Your task to perform on an android device: Open calendar and show me the first week of next month Image 0: 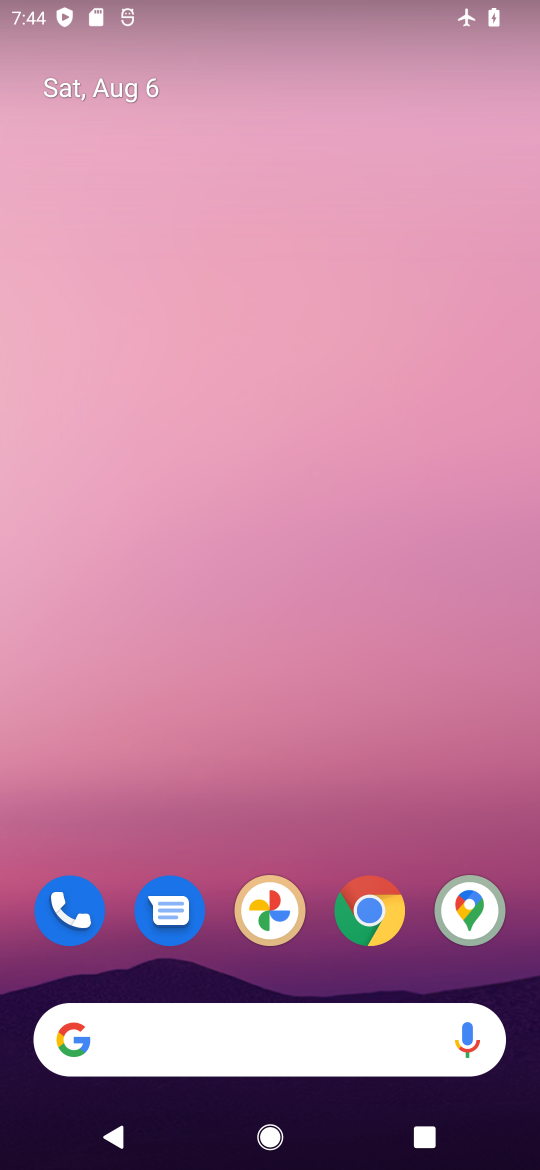
Step 0: drag from (473, 942) to (365, 290)
Your task to perform on an android device: Open calendar and show me the first week of next month Image 1: 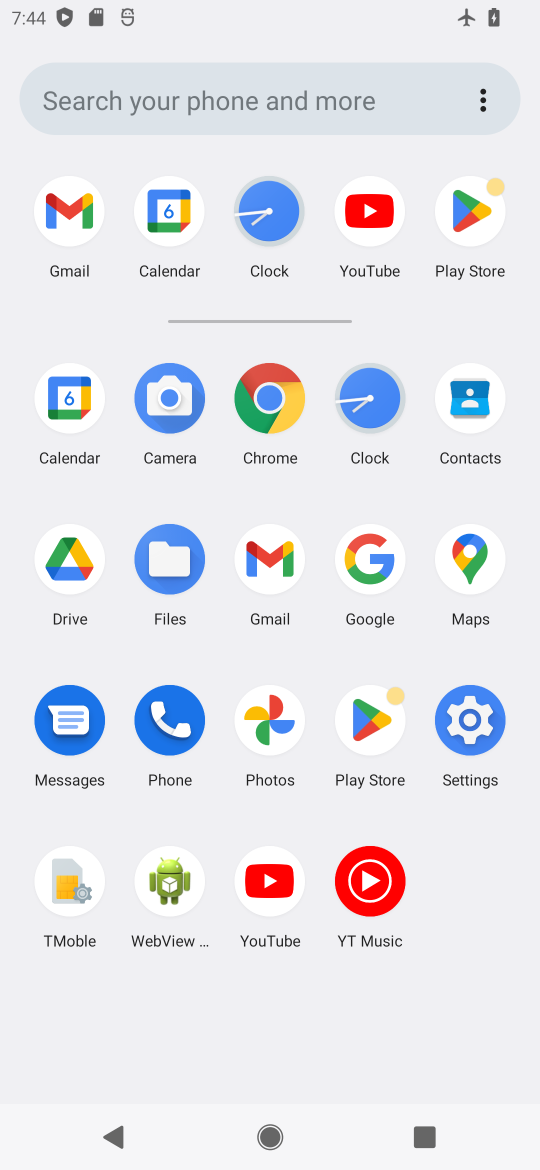
Step 1: click (79, 413)
Your task to perform on an android device: Open calendar and show me the first week of next month Image 2: 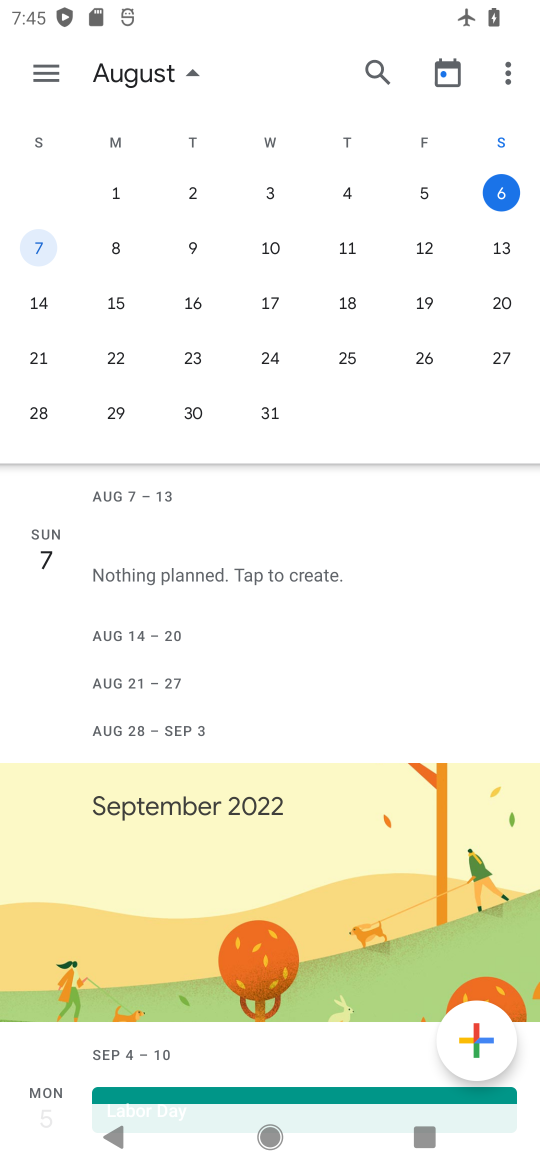
Step 2: drag from (512, 281) to (53, 305)
Your task to perform on an android device: Open calendar and show me the first week of next month Image 3: 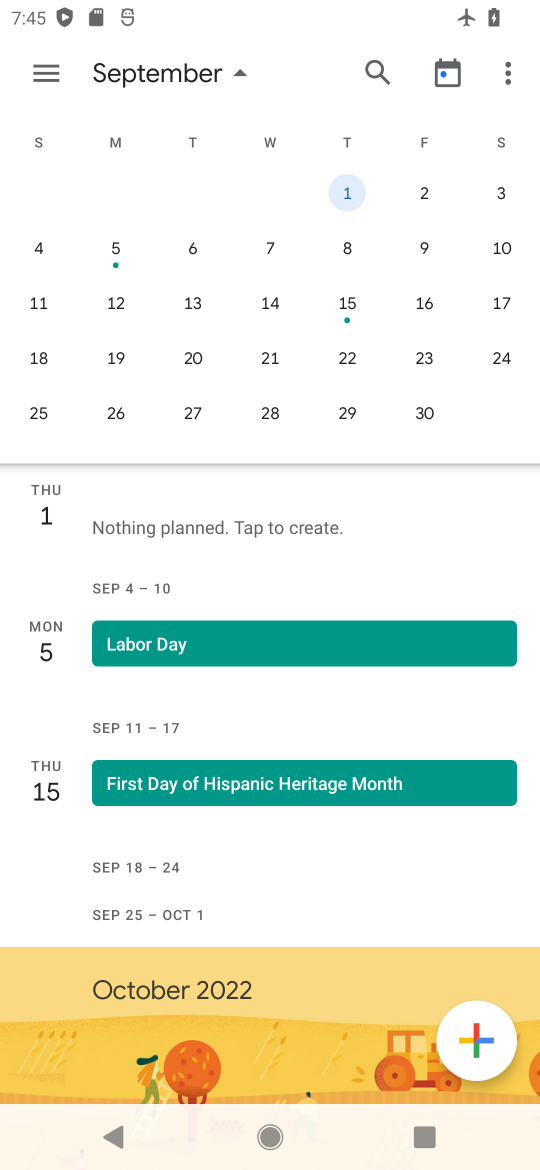
Step 3: click (49, 70)
Your task to perform on an android device: Open calendar and show me the first week of next month Image 4: 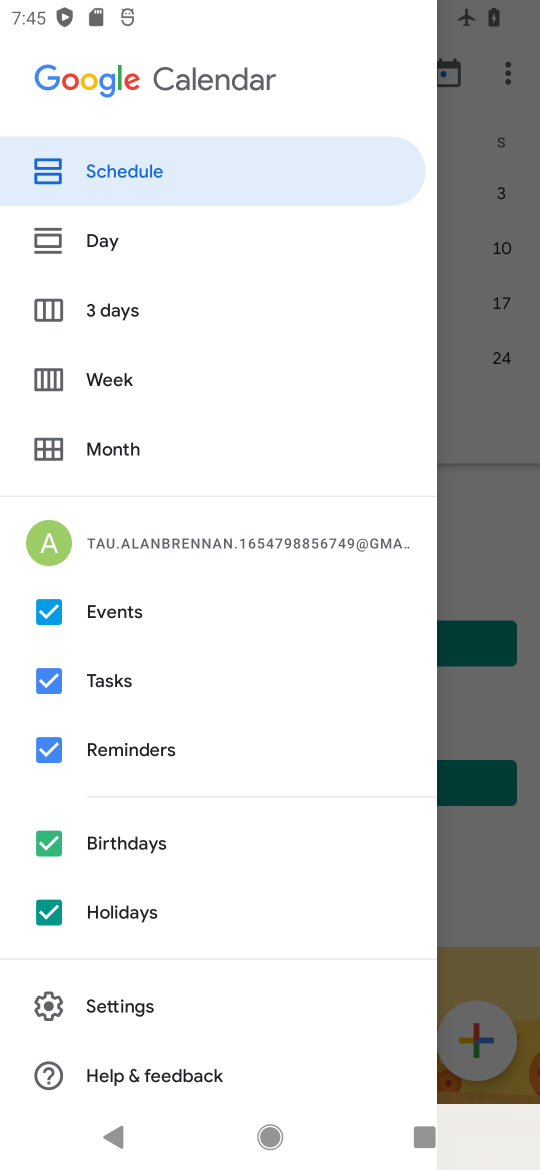
Step 4: click (83, 371)
Your task to perform on an android device: Open calendar and show me the first week of next month Image 5: 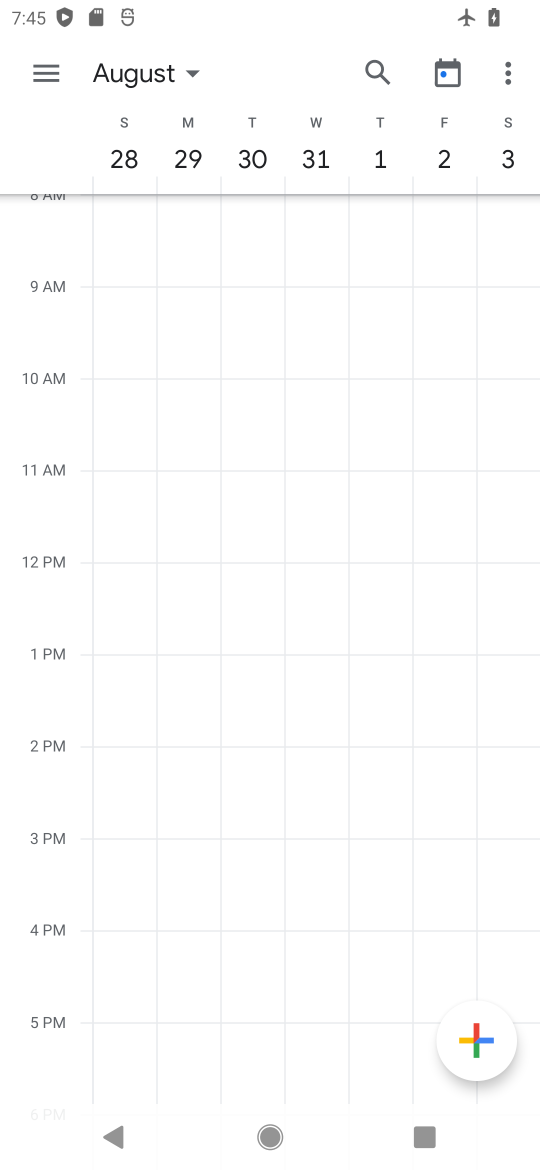
Step 5: task complete